Your task to perform on an android device: Add "logitech g903" to the cart on bestbuy.com, then select checkout. Image 0: 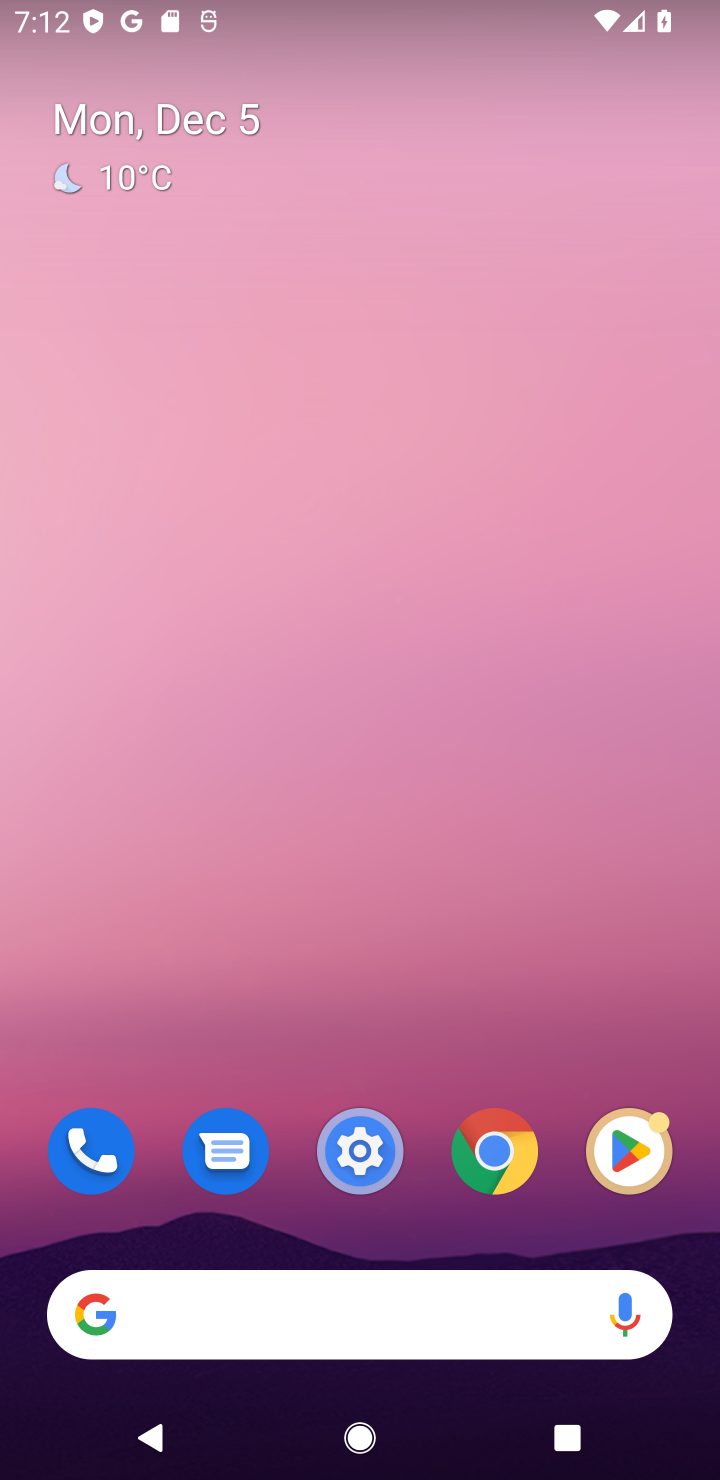
Step 0: click (400, 1289)
Your task to perform on an android device: Add "logitech g903" to the cart on bestbuy.com, then select checkout. Image 1: 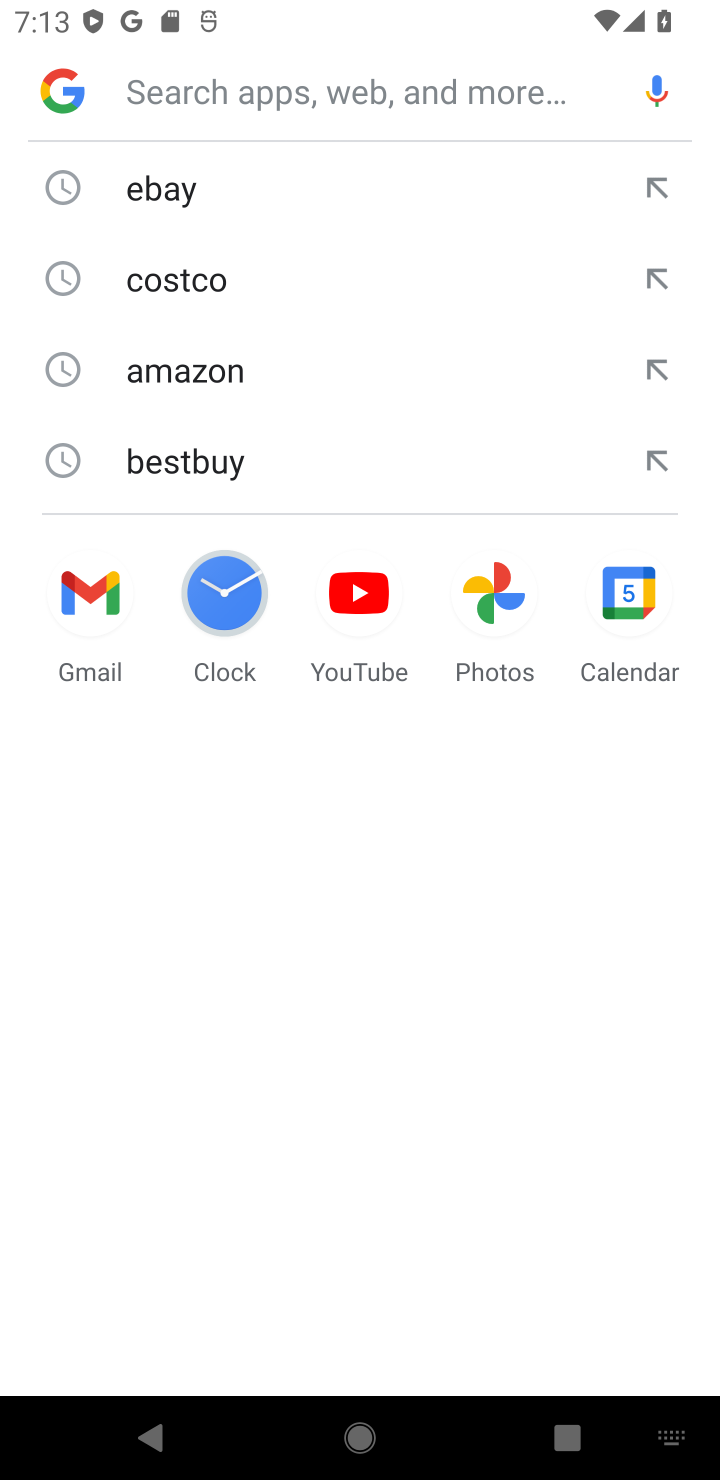
Step 1: type "bestbuy"
Your task to perform on an android device: Add "logitech g903" to the cart on bestbuy.com, then select checkout. Image 2: 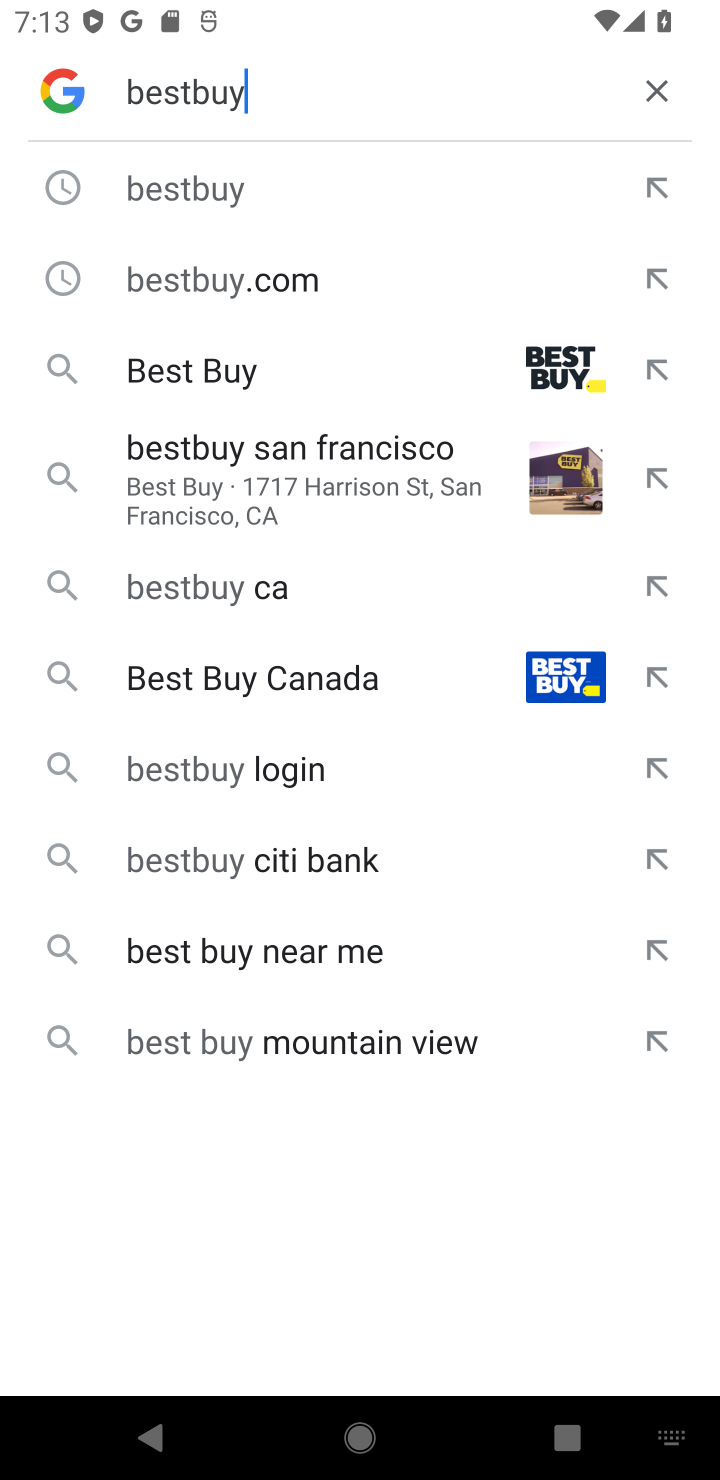
Step 2: click (282, 196)
Your task to perform on an android device: Add "logitech g903" to the cart on bestbuy.com, then select checkout. Image 3: 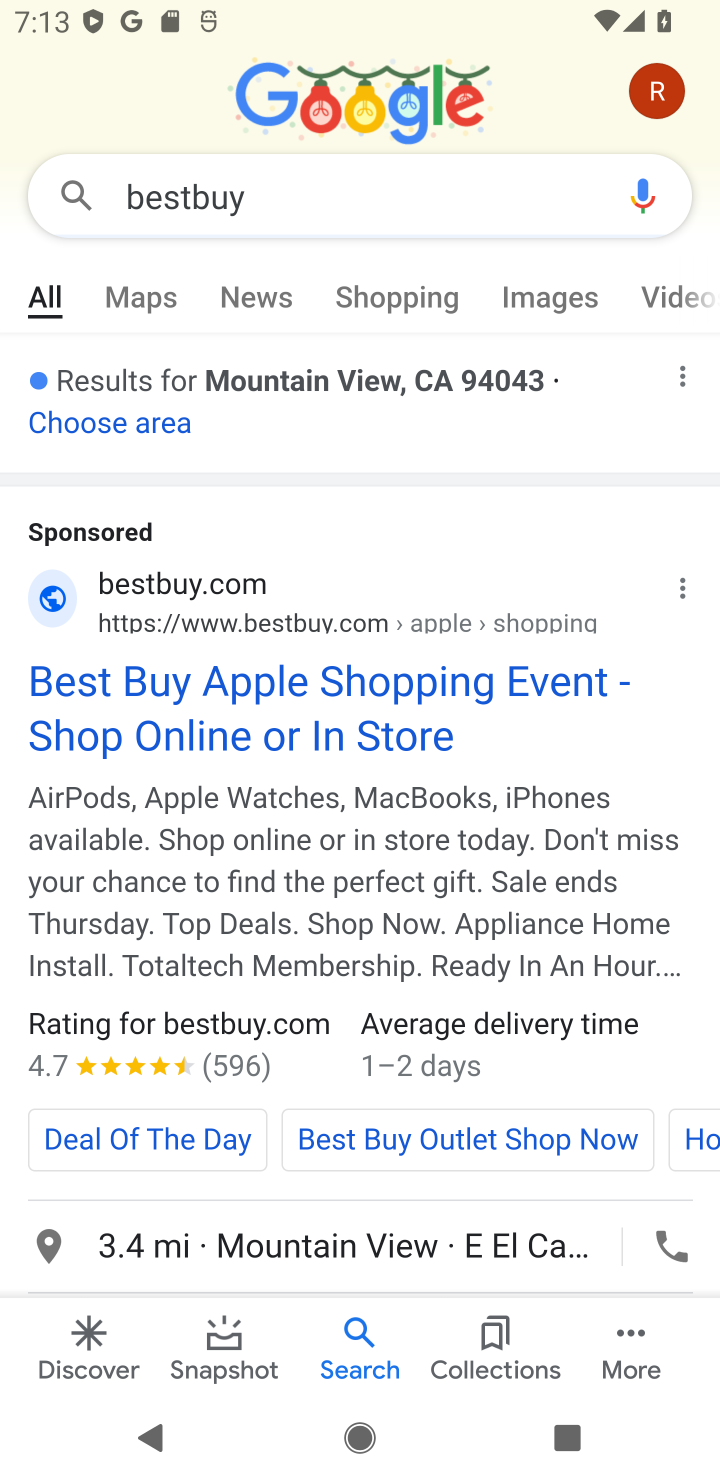
Step 3: click (208, 726)
Your task to perform on an android device: Add "logitech g903" to the cart on bestbuy.com, then select checkout. Image 4: 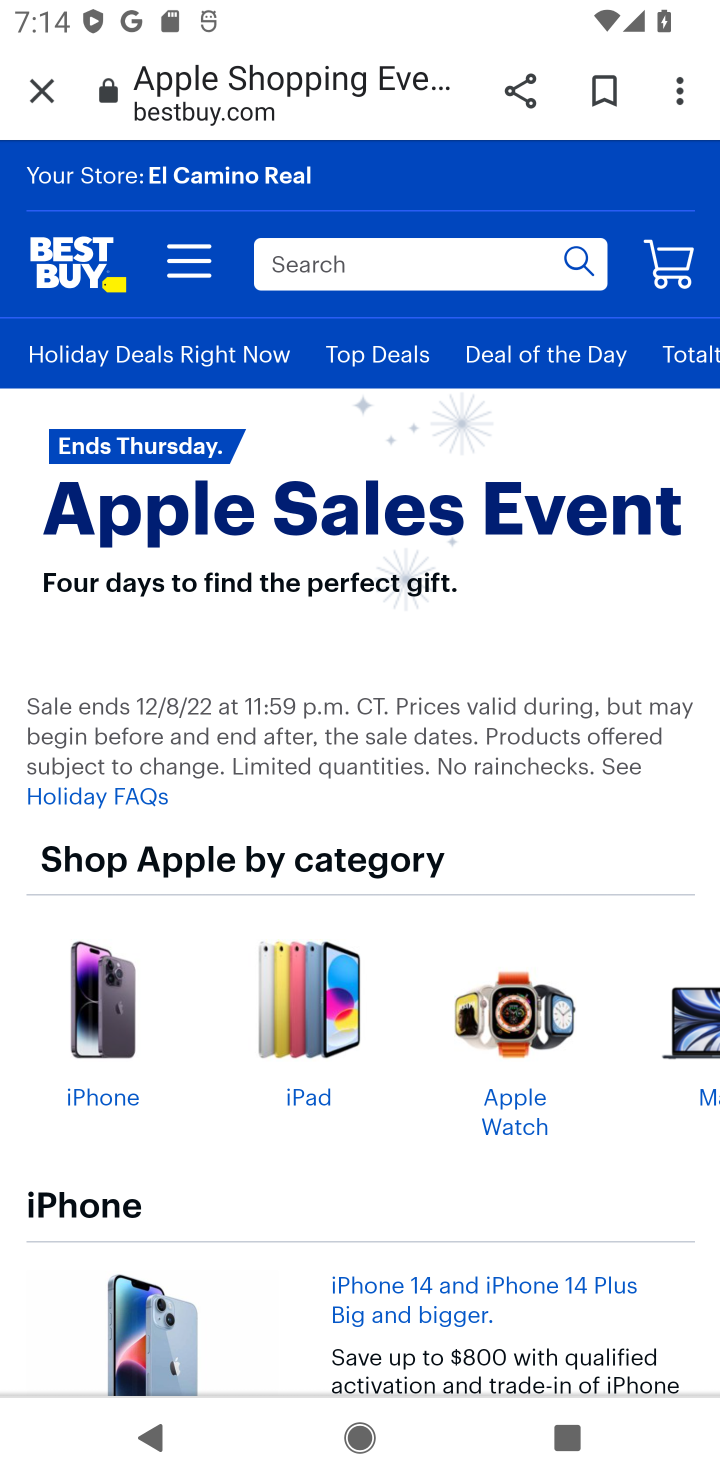
Step 4: click (295, 271)
Your task to perform on an android device: Add "logitech g903" to the cart on bestbuy.com, then select checkout. Image 5: 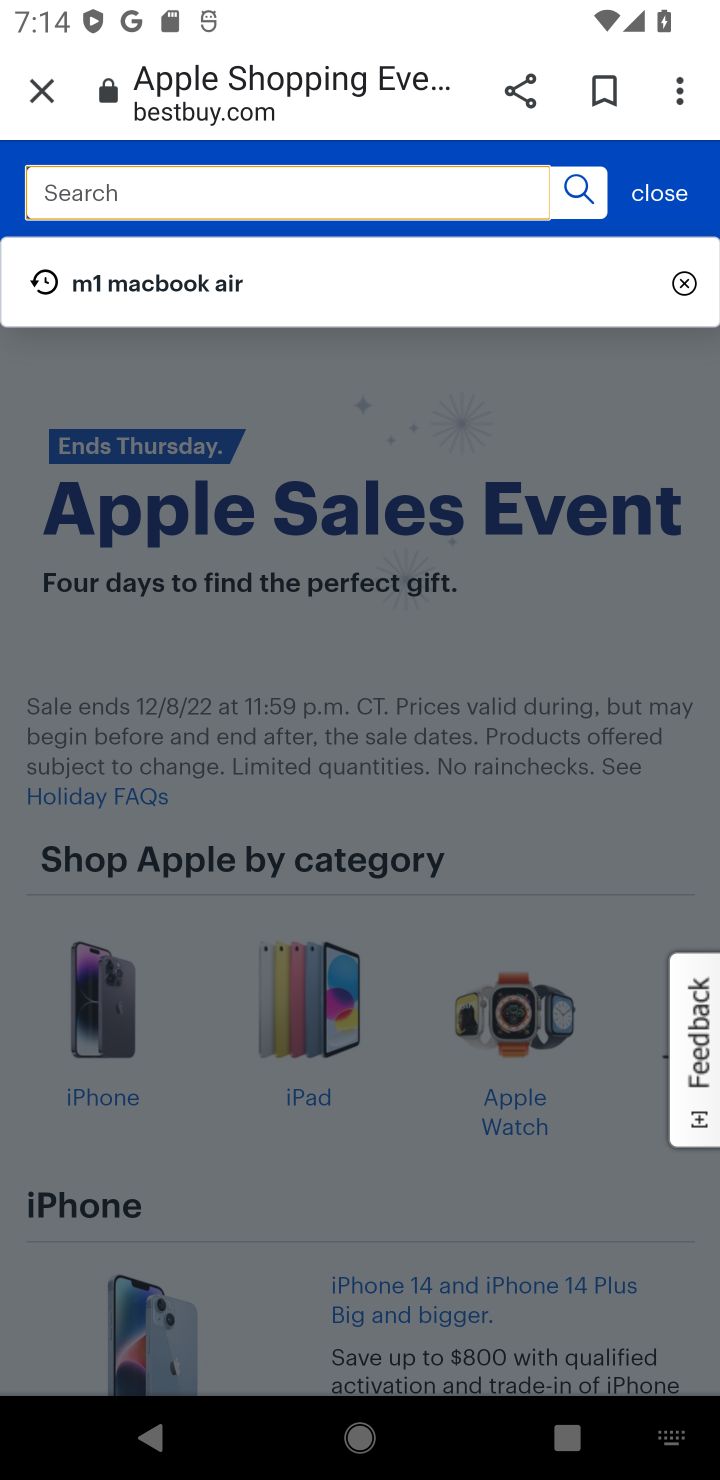
Step 5: type "logitech g903"
Your task to perform on an android device: Add "logitech g903" to the cart on bestbuy.com, then select checkout. Image 6: 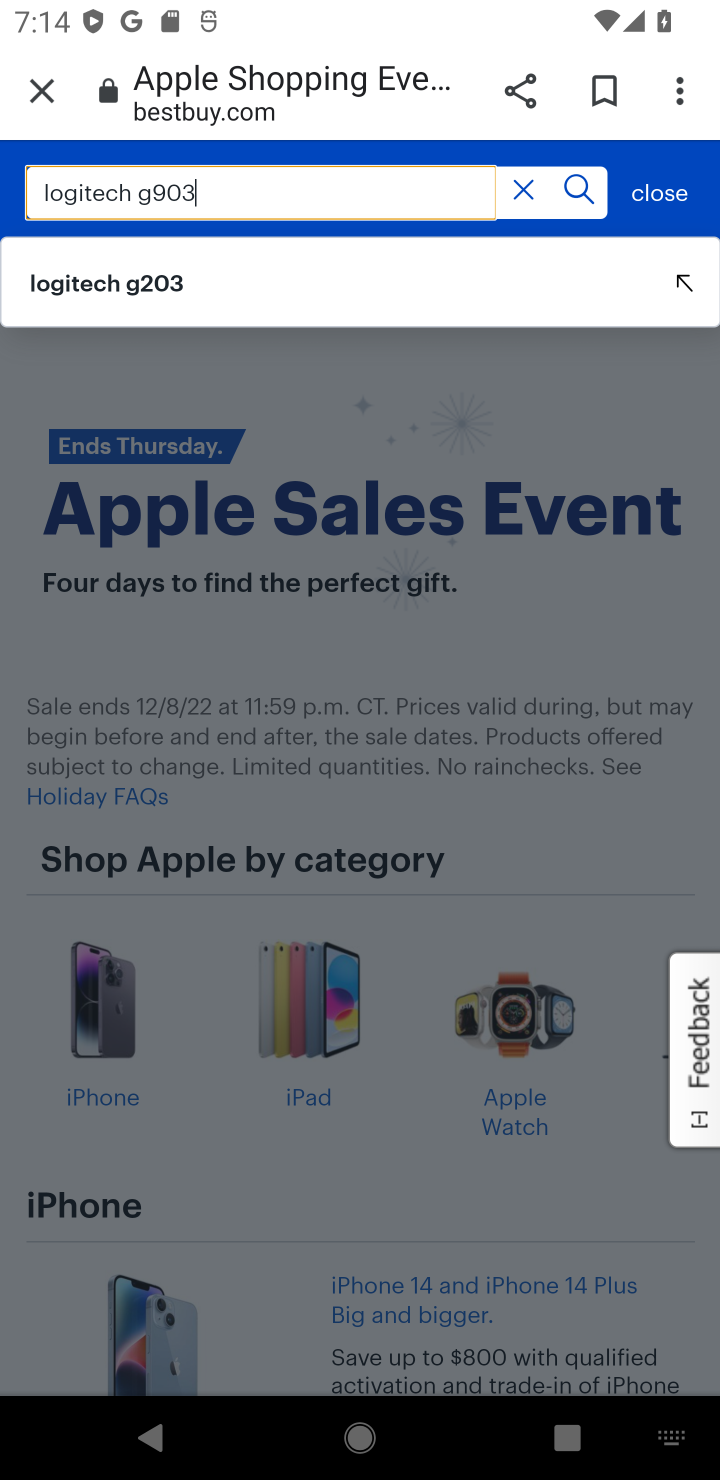
Step 6: click (254, 299)
Your task to perform on an android device: Add "logitech g903" to the cart on bestbuy.com, then select checkout. Image 7: 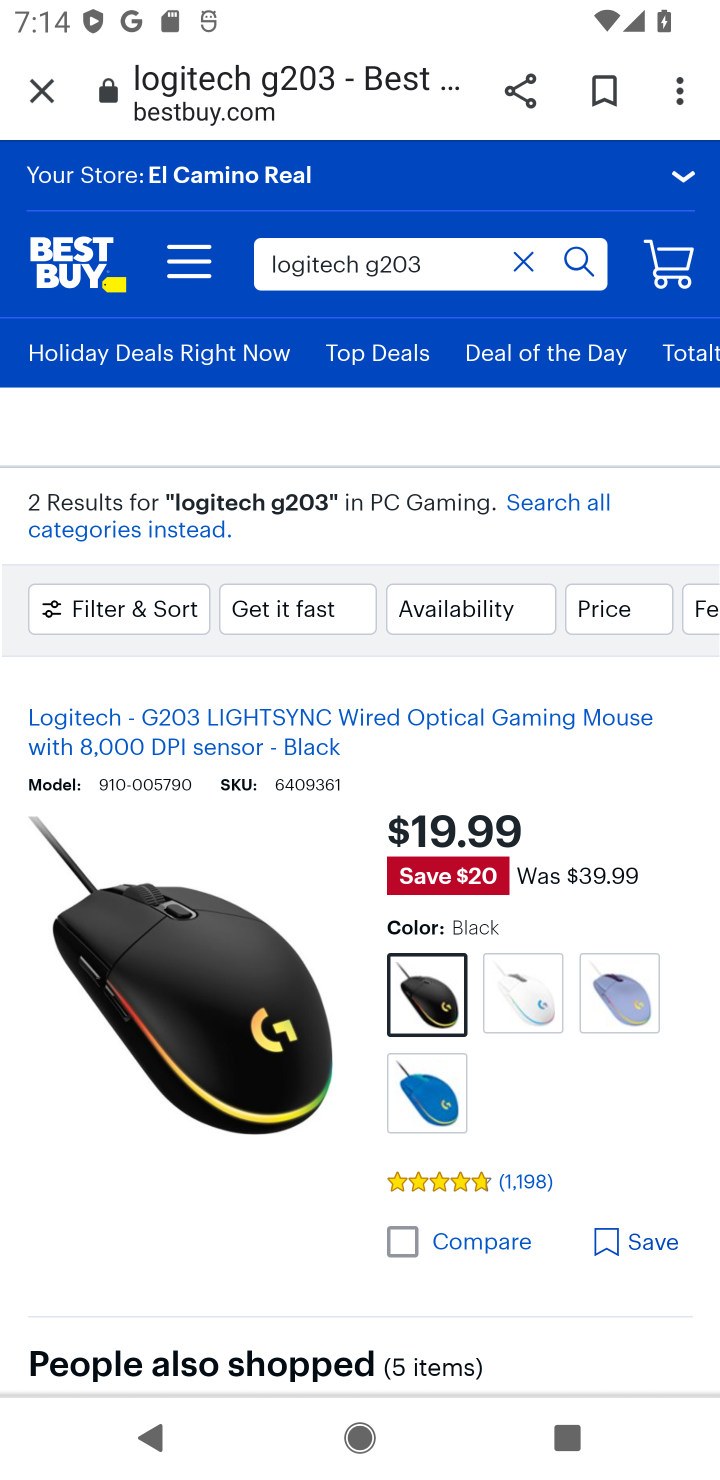
Step 7: drag from (302, 1210) to (253, 320)
Your task to perform on an android device: Add "logitech g903" to the cart on bestbuy.com, then select checkout. Image 8: 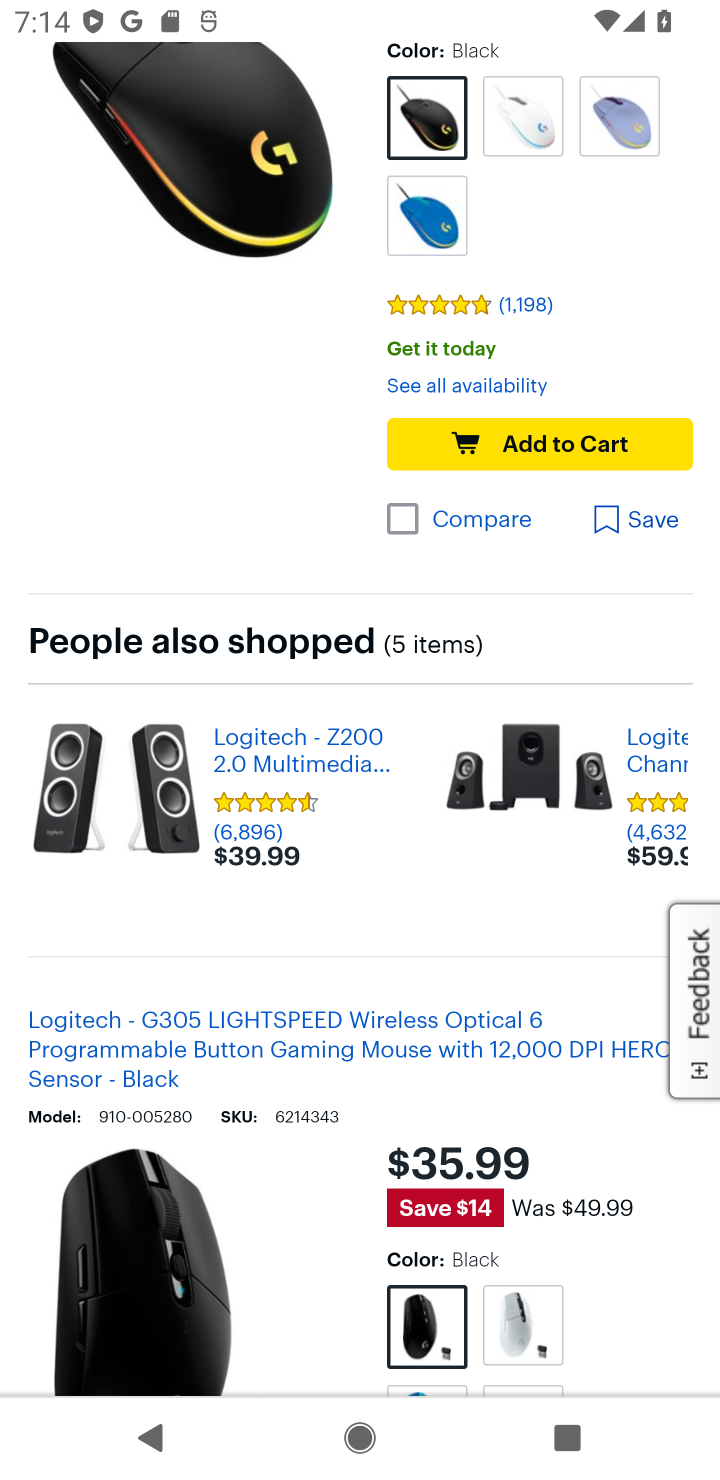
Step 8: click (509, 436)
Your task to perform on an android device: Add "logitech g903" to the cart on bestbuy.com, then select checkout. Image 9: 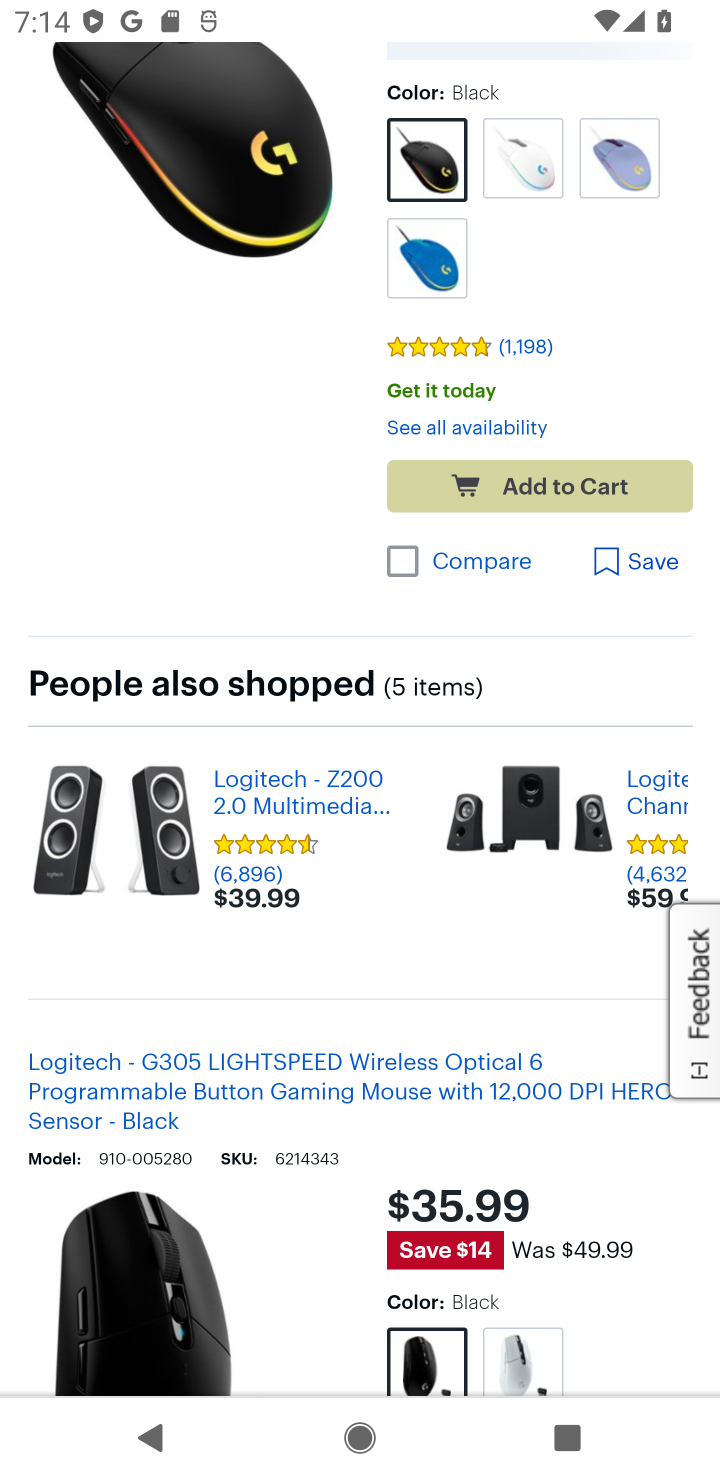
Step 9: task complete